Your task to perform on an android device: turn smart compose on in the gmail app Image 0: 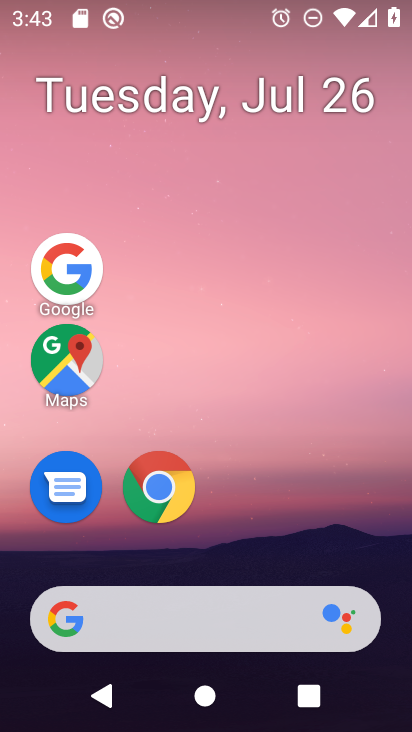
Step 0: drag from (201, 628) to (165, 90)
Your task to perform on an android device: turn smart compose on in the gmail app Image 1: 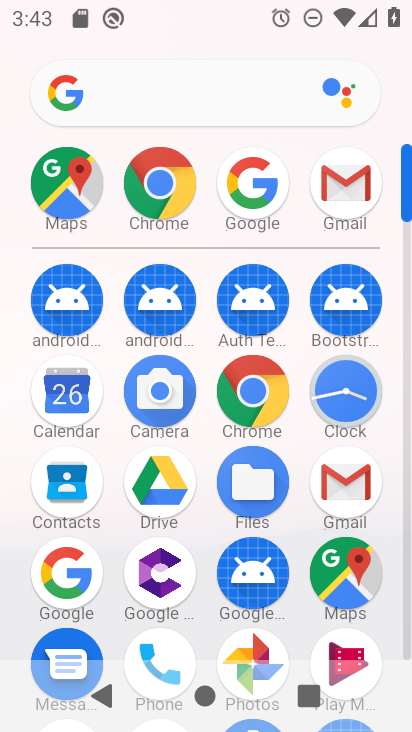
Step 1: click (340, 520)
Your task to perform on an android device: turn smart compose on in the gmail app Image 2: 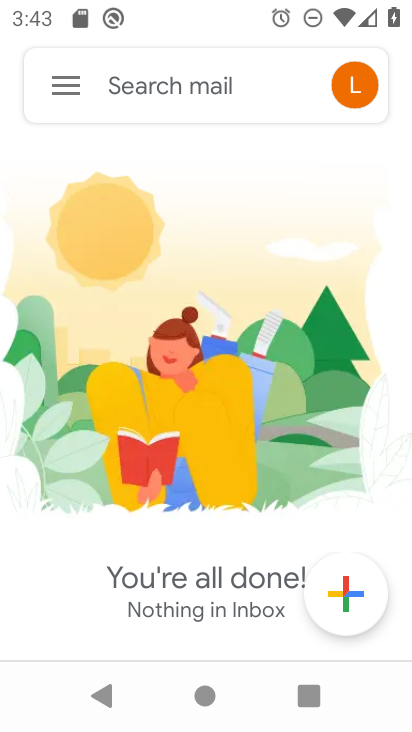
Step 2: click (70, 87)
Your task to perform on an android device: turn smart compose on in the gmail app Image 3: 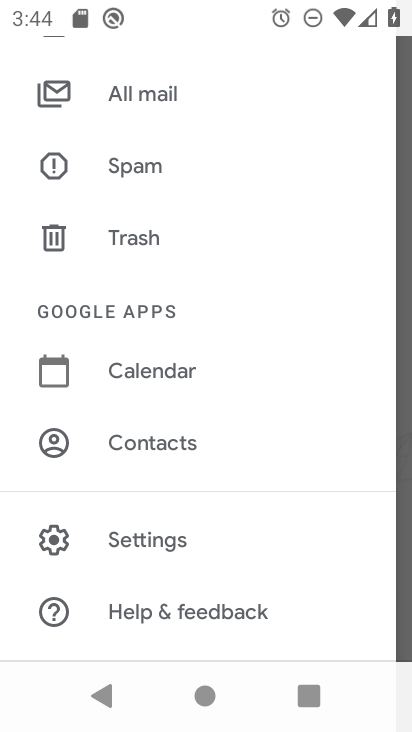
Step 3: click (138, 539)
Your task to perform on an android device: turn smart compose on in the gmail app Image 4: 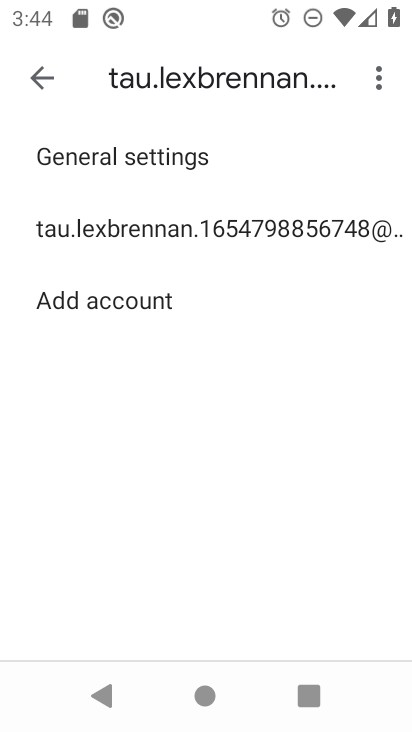
Step 4: click (195, 232)
Your task to perform on an android device: turn smart compose on in the gmail app Image 5: 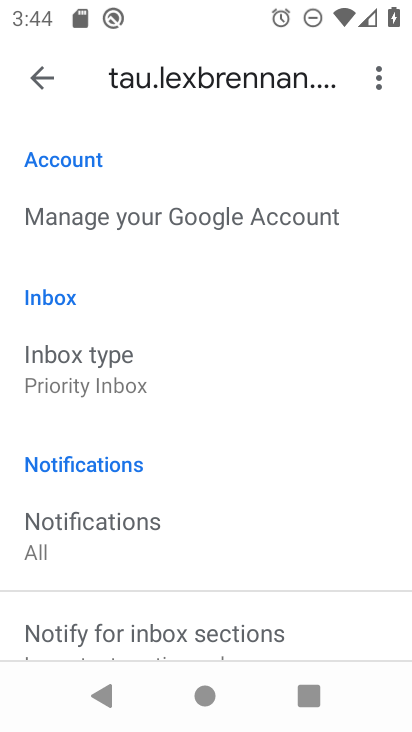
Step 5: drag from (154, 532) to (133, 262)
Your task to perform on an android device: turn smart compose on in the gmail app Image 6: 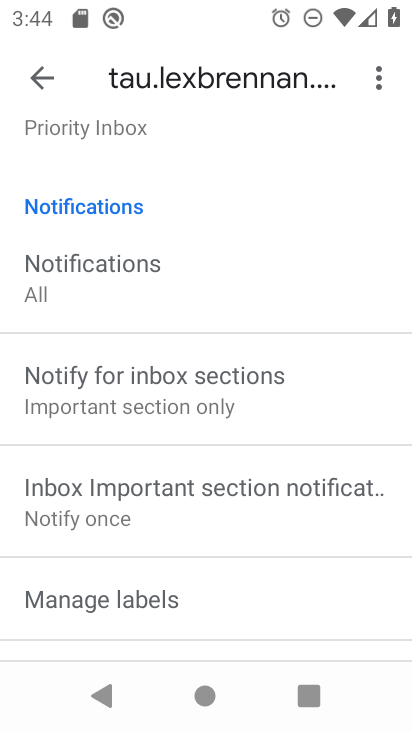
Step 6: drag from (159, 543) to (186, 93)
Your task to perform on an android device: turn smart compose on in the gmail app Image 7: 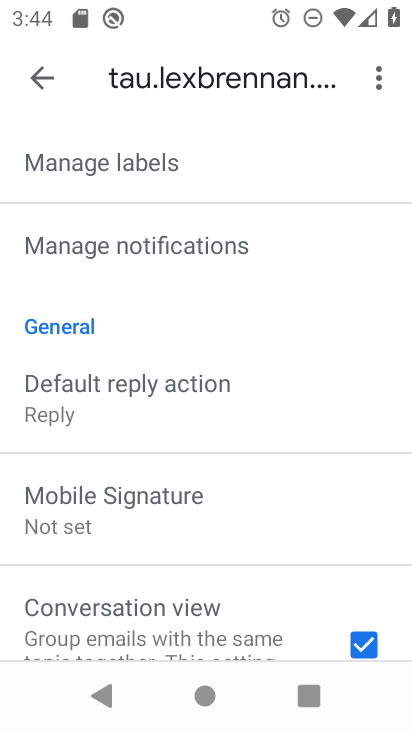
Step 7: drag from (160, 534) to (137, 245)
Your task to perform on an android device: turn smart compose on in the gmail app Image 8: 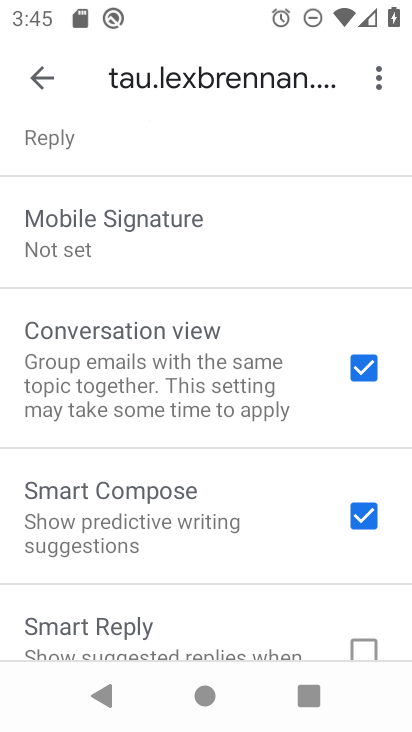
Step 8: drag from (174, 546) to (162, 321)
Your task to perform on an android device: turn smart compose on in the gmail app Image 9: 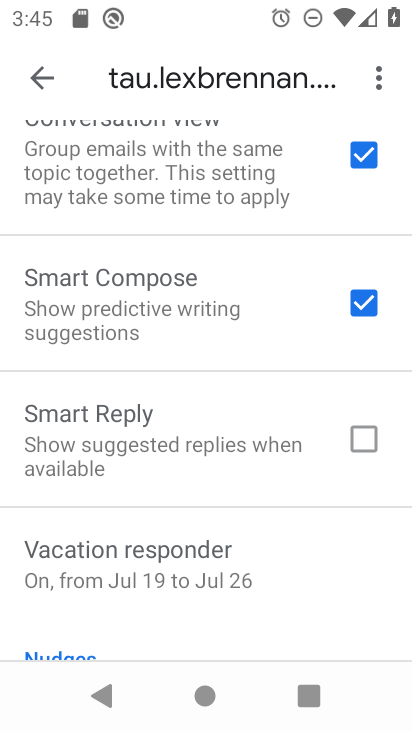
Step 9: click (358, 446)
Your task to perform on an android device: turn smart compose on in the gmail app Image 10: 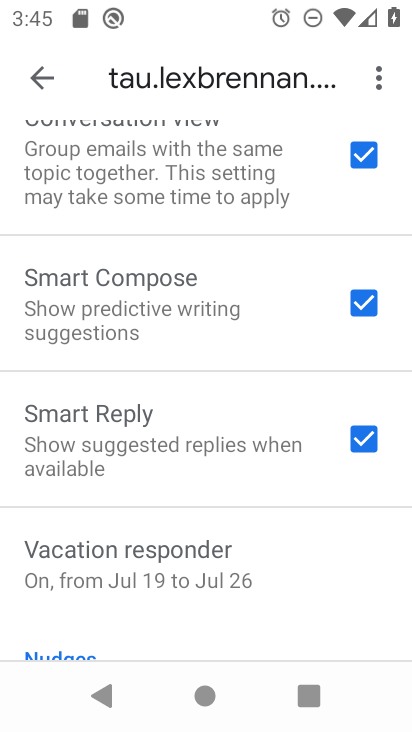
Step 10: task complete